Your task to perform on an android device: Open Chrome and go to the settings page Image 0: 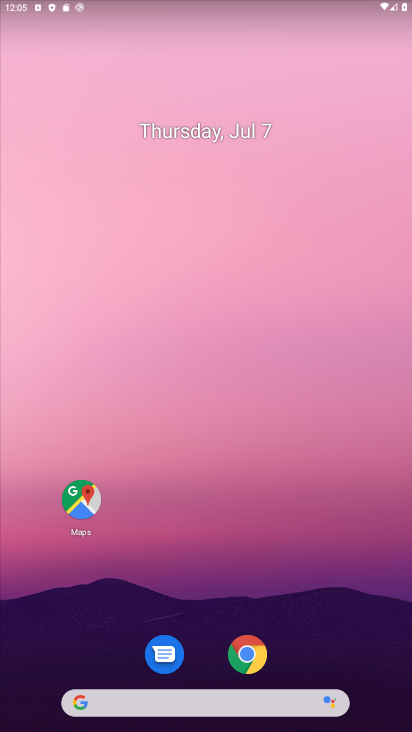
Step 0: click (242, 657)
Your task to perform on an android device: Open Chrome and go to the settings page Image 1: 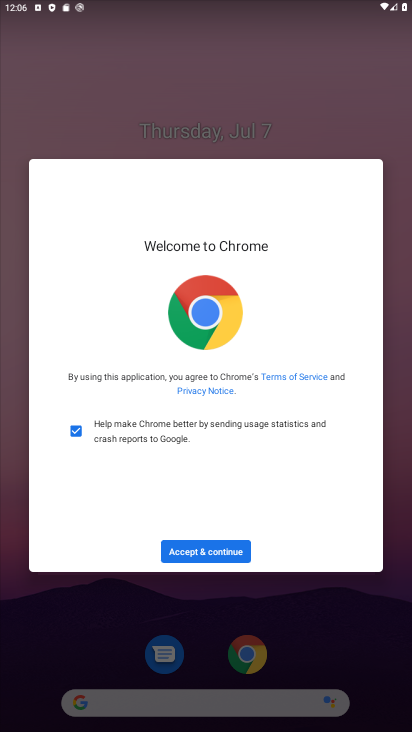
Step 1: click (183, 551)
Your task to perform on an android device: Open Chrome and go to the settings page Image 2: 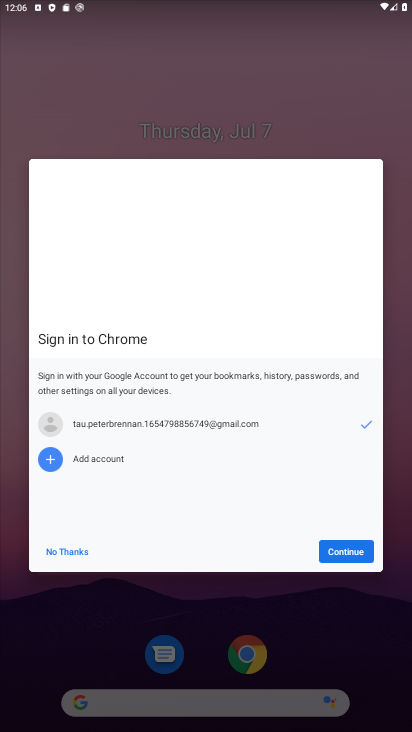
Step 2: click (353, 548)
Your task to perform on an android device: Open Chrome and go to the settings page Image 3: 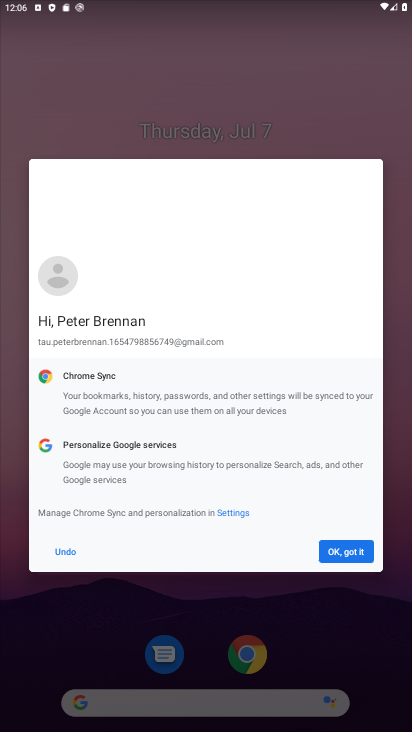
Step 3: click (340, 553)
Your task to perform on an android device: Open Chrome and go to the settings page Image 4: 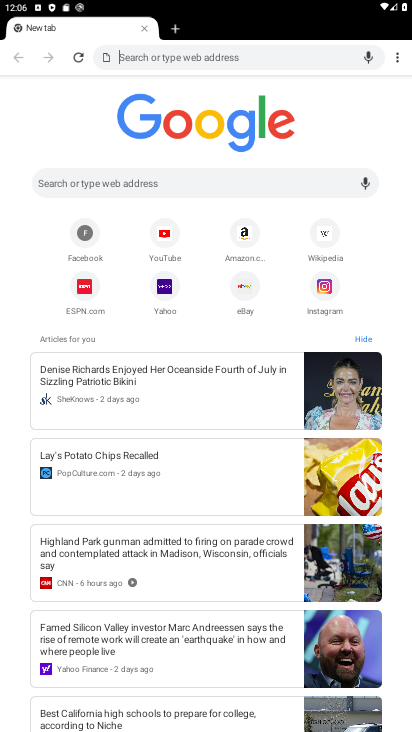
Step 4: click (397, 66)
Your task to perform on an android device: Open Chrome and go to the settings page Image 5: 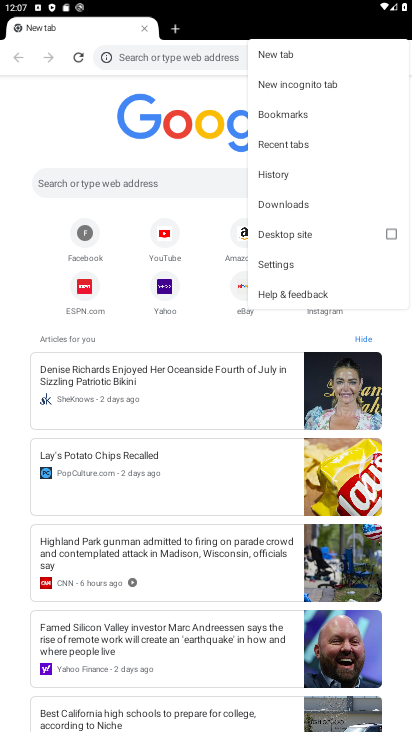
Step 5: click (289, 262)
Your task to perform on an android device: Open Chrome and go to the settings page Image 6: 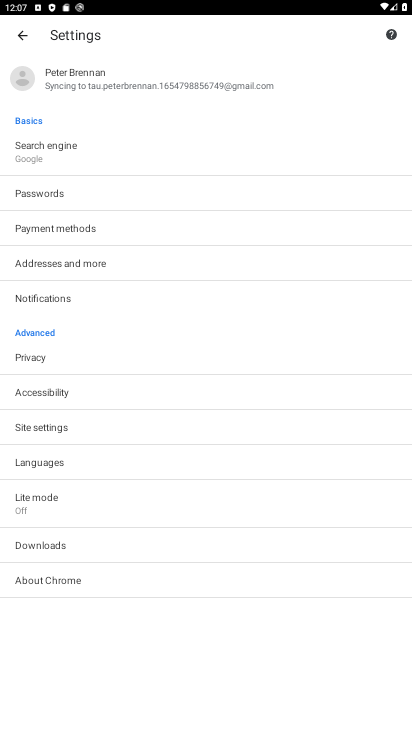
Step 6: task complete